Your task to perform on an android device: see tabs open on other devices in the chrome app Image 0: 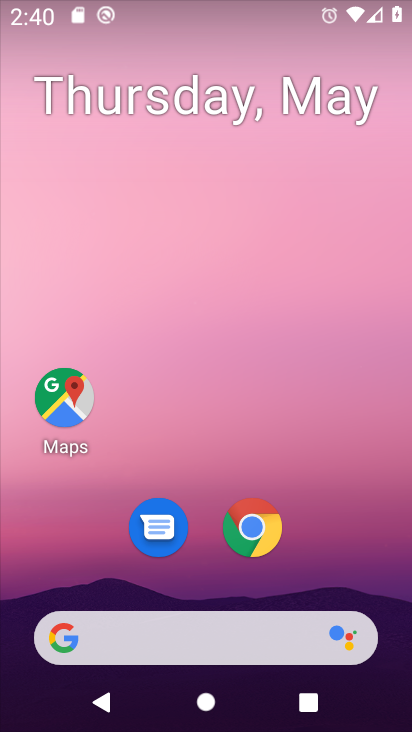
Step 0: drag from (348, 567) to (274, 22)
Your task to perform on an android device: see tabs open on other devices in the chrome app Image 1: 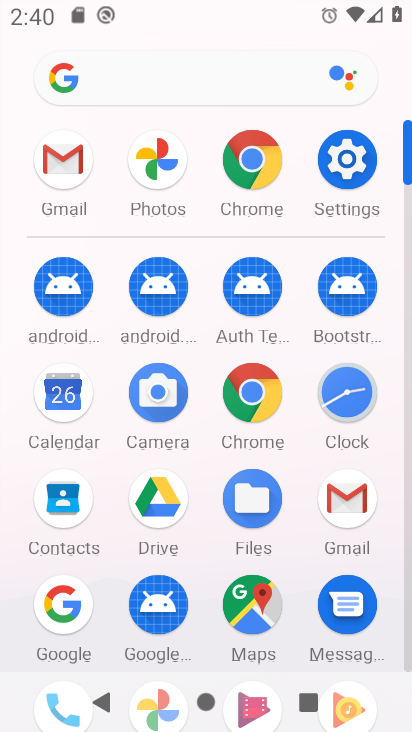
Step 1: click (252, 410)
Your task to perform on an android device: see tabs open on other devices in the chrome app Image 2: 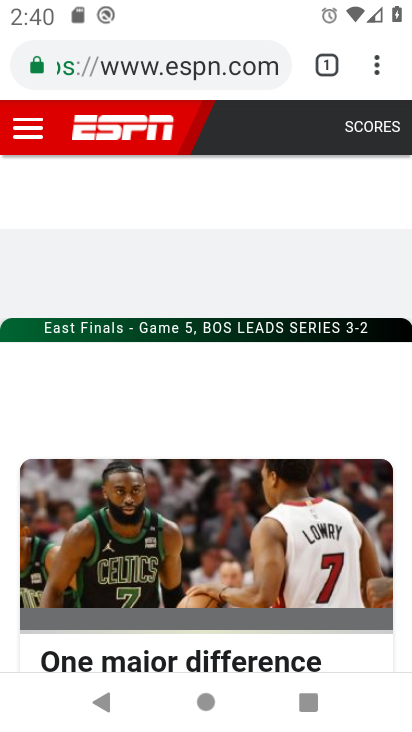
Step 2: task complete